Your task to perform on an android device: turn on notifications settings in the gmail app Image 0: 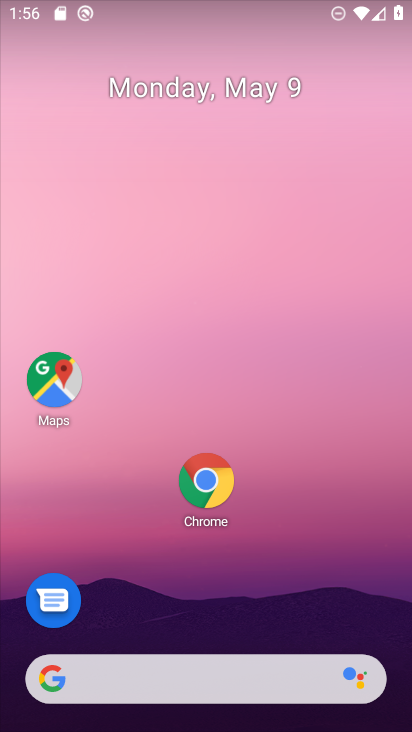
Step 0: drag from (234, 665) to (382, 206)
Your task to perform on an android device: turn on notifications settings in the gmail app Image 1: 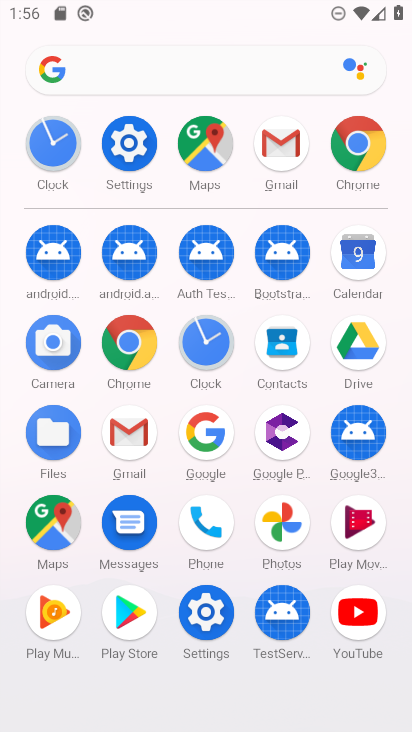
Step 1: click (271, 152)
Your task to perform on an android device: turn on notifications settings in the gmail app Image 2: 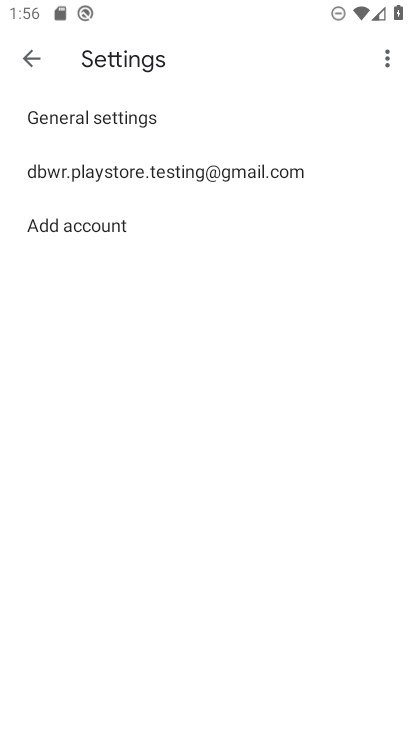
Step 2: click (254, 168)
Your task to perform on an android device: turn on notifications settings in the gmail app Image 3: 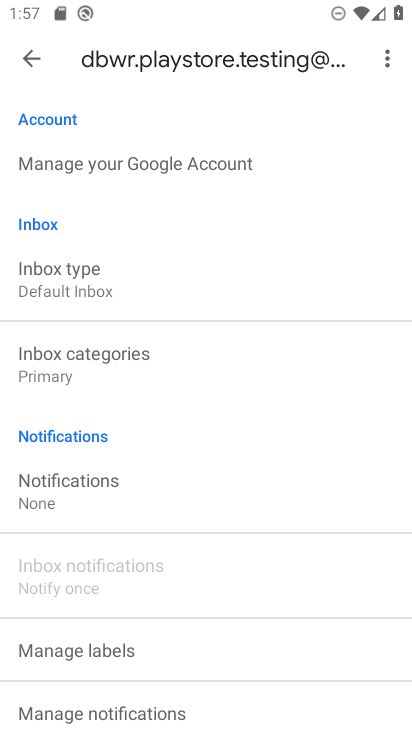
Step 3: click (80, 491)
Your task to perform on an android device: turn on notifications settings in the gmail app Image 4: 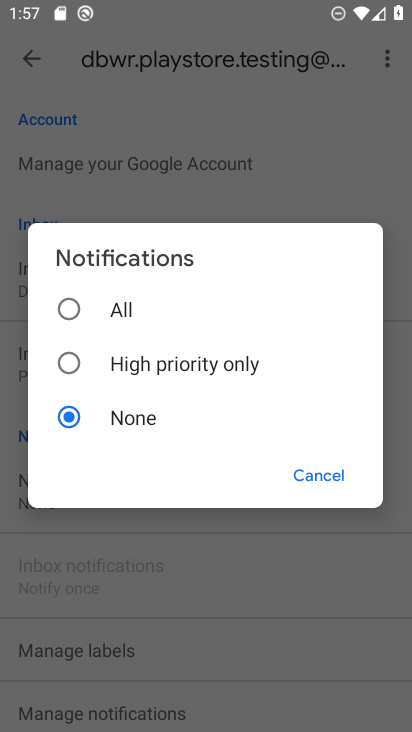
Step 4: click (71, 304)
Your task to perform on an android device: turn on notifications settings in the gmail app Image 5: 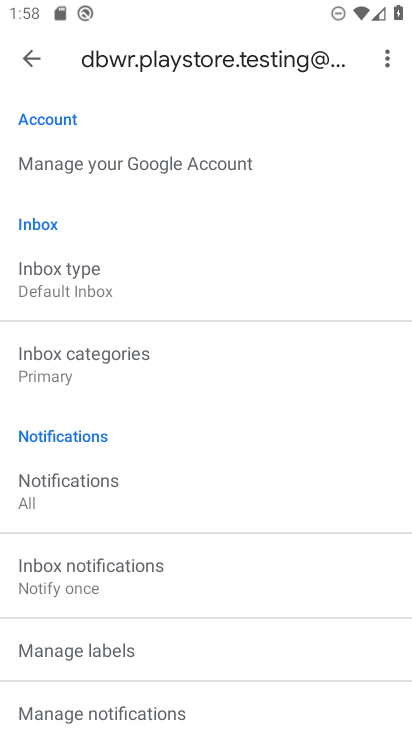
Step 5: task complete